Your task to perform on an android device: find which apps use the phone's location Image 0: 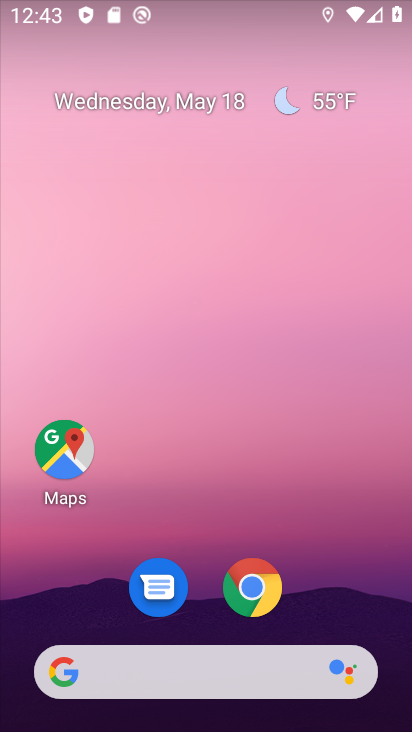
Step 0: drag from (193, 601) to (242, 143)
Your task to perform on an android device: find which apps use the phone's location Image 1: 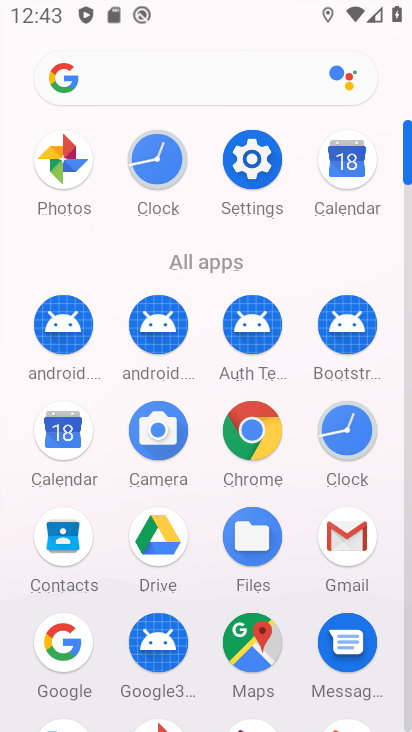
Step 1: click (270, 159)
Your task to perform on an android device: find which apps use the phone's location Image 2: 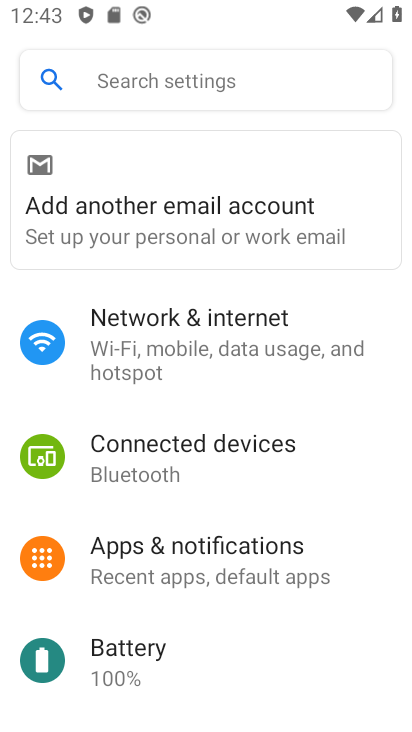
Step 2: drag from (182, 651) to (244, 204)
Your task to perform on an android device: find which apps use the phone's location Image 3: 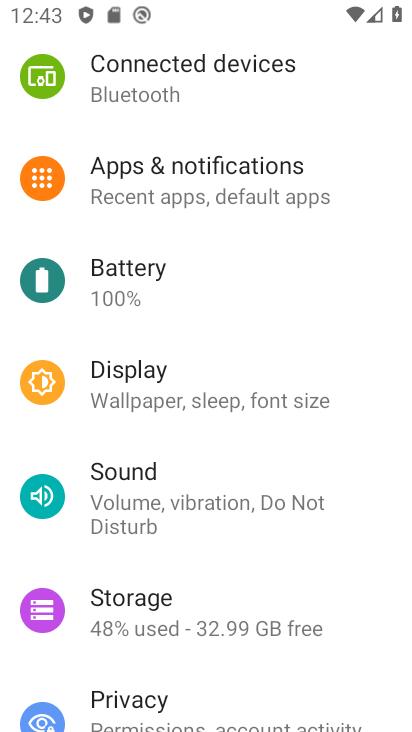
Step 3: drag from (214, 537) to (268, 84)
Your task to perform on an android device: find which apps use the phone's location Image 4: 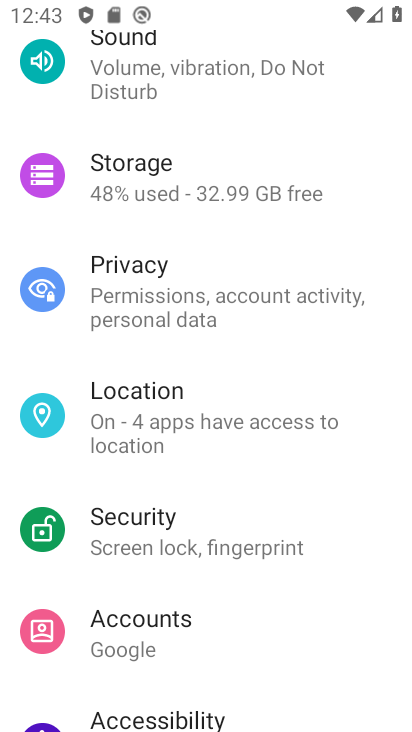
Step 4: click (175, 433)
Your task to perform on an android device: find which apps use the phone's location Image 5: 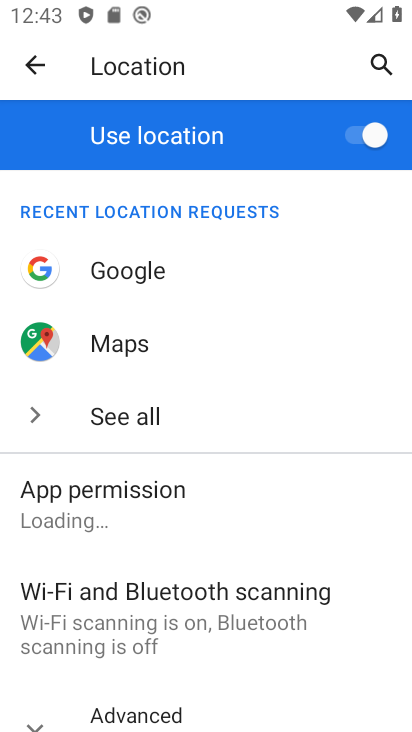
Step 5: click (106, 513)
Your task to perform on an android device: find which apps use the phone's location Image 6: 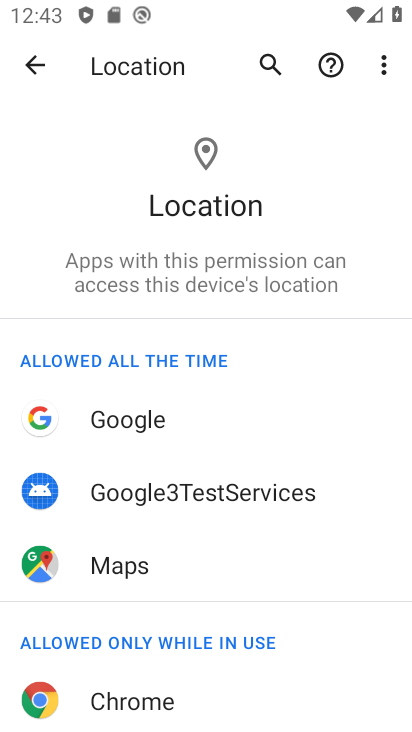
Step 6: task complete